Your task to perform on an android device: Open ESPN.com Image 0: 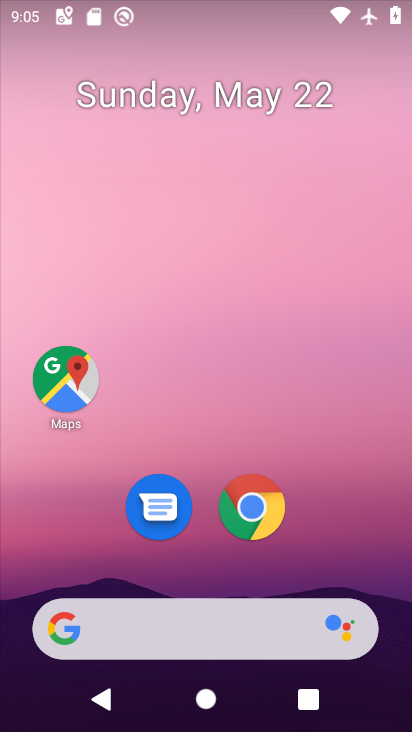
Step 0: click (158, 631)
Your task to perform on an android device: Open ESPN.com Image 1: 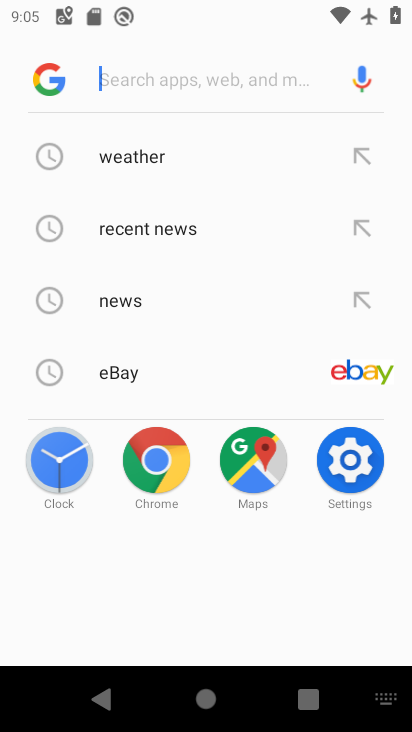
Step 1: type "espn.com"
Your task to perform on an android device: Open ESPN.com Image 2: 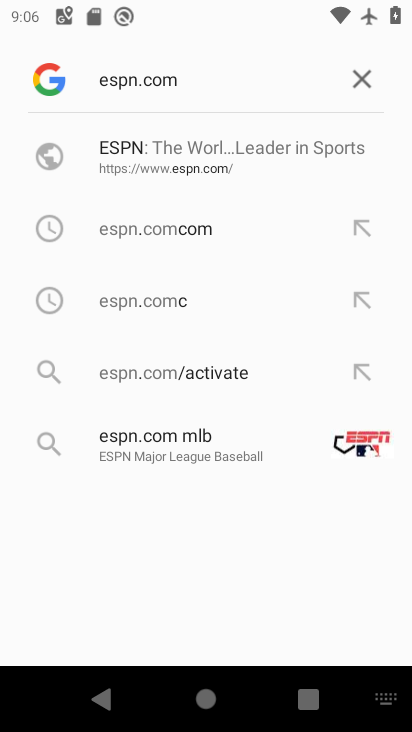
Step 2: click (285, 181)
Your task to perform on an android device: Open ESPN.com Image 3: 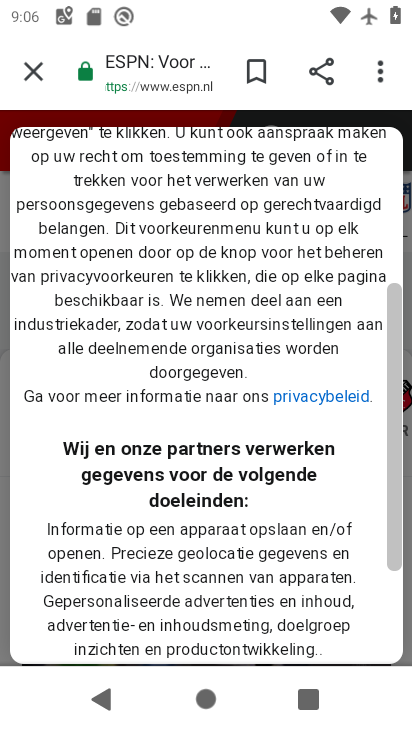
Step 3: task complete